Your task to perform on an android device: remove spam from my inbox in the gmail app Image 0: 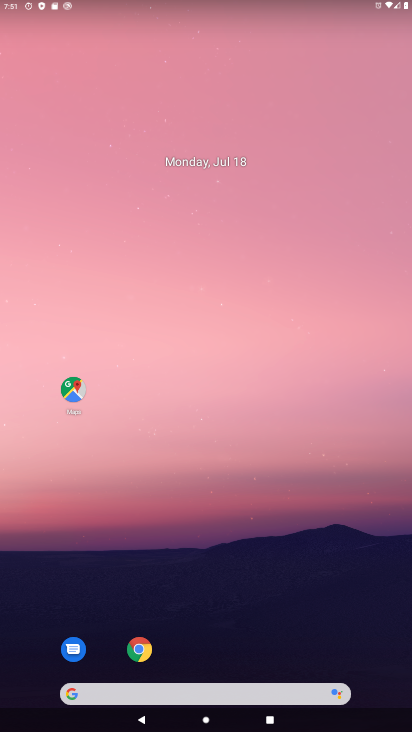
Step 0: drag from (289, 548) to (311, 78)
Your task to perform on an android device: remove spam from my inbox in the gmail app Image 1: 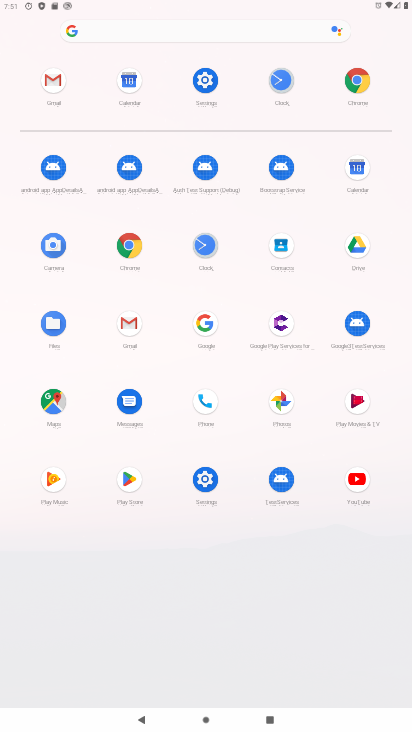
Step 1: click (131, 324)
Your task to perform on an android device: remove spam from my inbox in the gmail app Image 2: 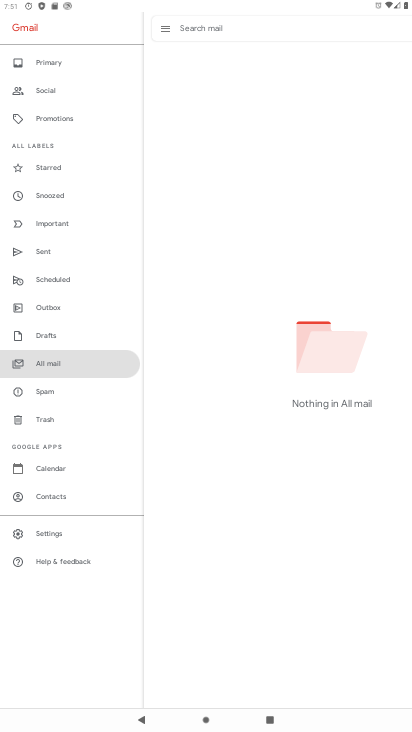
Step 2: click (43, 401)
Your task to perform on an android device: remove spam from my inbox in the gmail app Image 3: 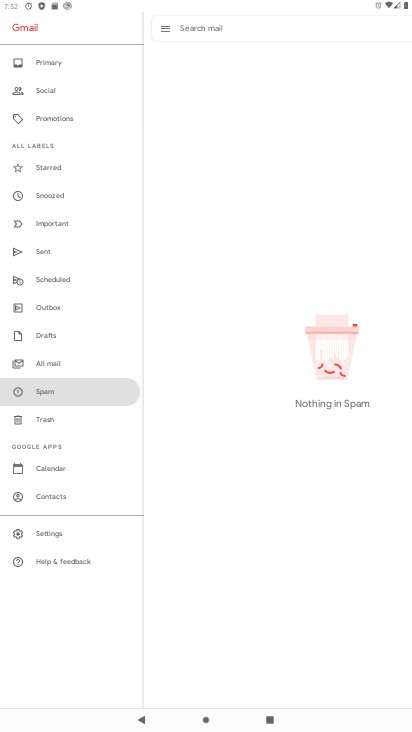
Step 3: click (51, 60)
Your task to perform on an android device: remove spam from my inbox in the gmail app Image 4: 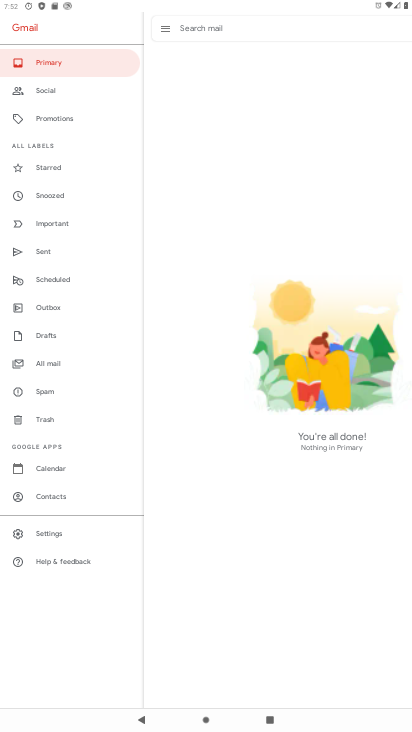
Step 4: task complete